Your task to perform on an android device: Search for sushi restaurants on Maps Image 0: 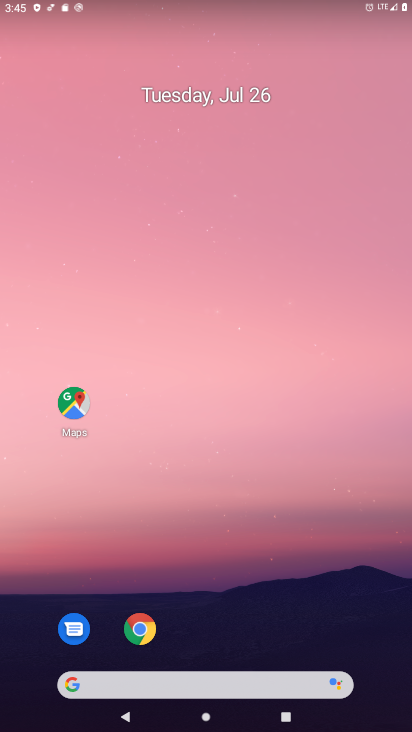
Step 0: drag from (242, 649) to (240, 230)
Your task to perform on an android device: Search for sushi restaurants on Maps Image 1: 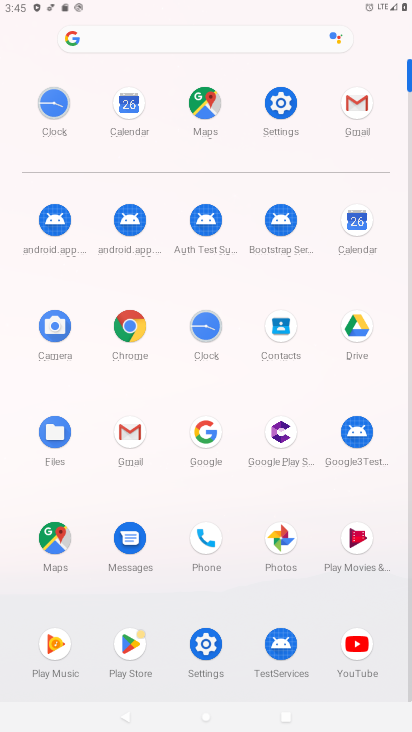
Step 1: click (54, 530)
Your task to perform on an android device: Search for sushi restaurants on Maps Image 2: 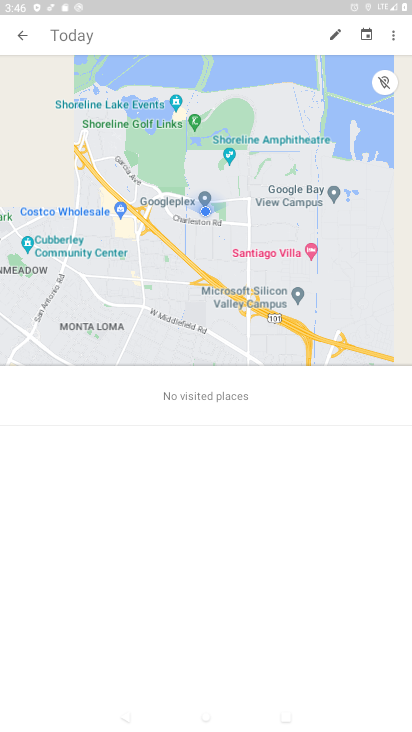
Step 2: click (28, 31)
Your task to perform on an android device: Search for sushi restaurants on Maps Image 3: 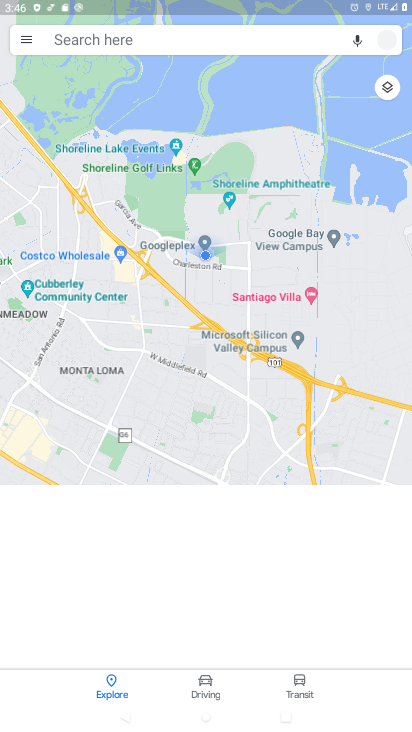
Step 3: click (114, 35)
Your task to perform on an android device: Search for sushi restaurants on Maps Image 4: 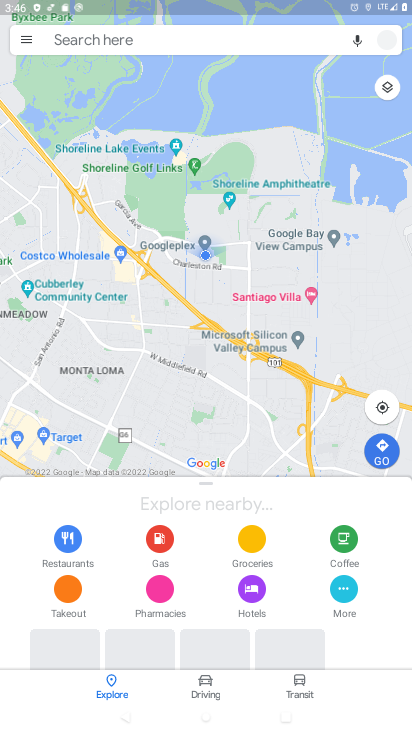
Step 4: click (161, 32)
Your task to perform on an android device: Search for sushi restaurants on Maps Image 5: 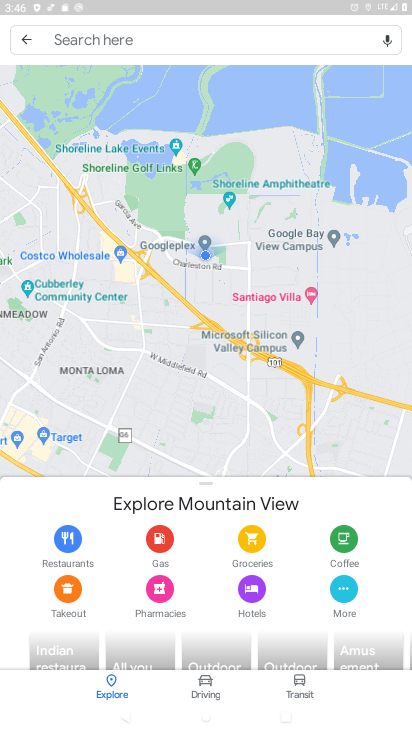
Step 5: click (170, 42)
Your task to perform on an android device: Search for sushi restaurants on Maps Image 6: 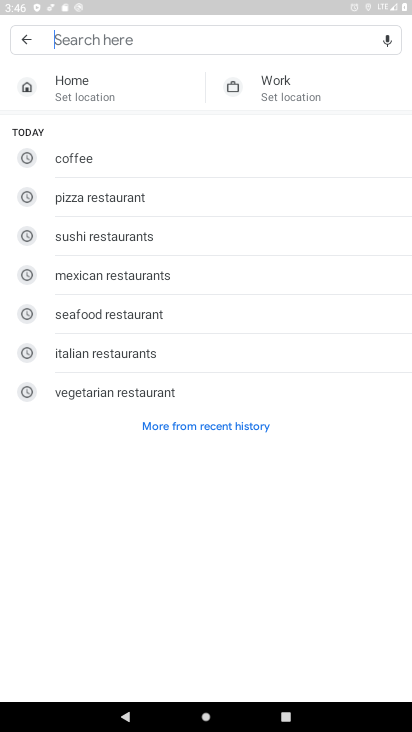
Step 6: type "sushi restaurants"
Your task to perform on an android device: Search for sushi restaurants on Maps Image 7: 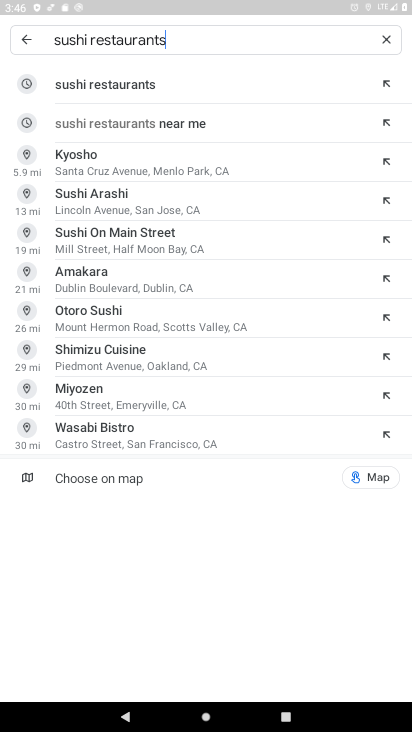
Step 7: click (145, 80)
Your task to perform on an android device: Search for sushi restaurants on Maps Image 8: 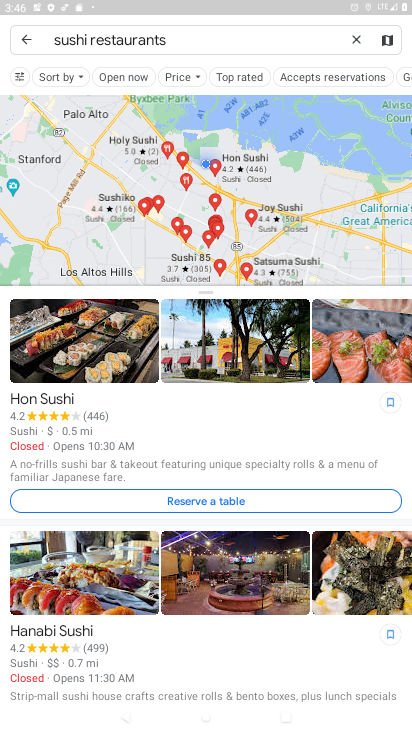
Step 8: task complete